Your task to perform on an android device: turn off priority inbox in the gmail app Image 0: 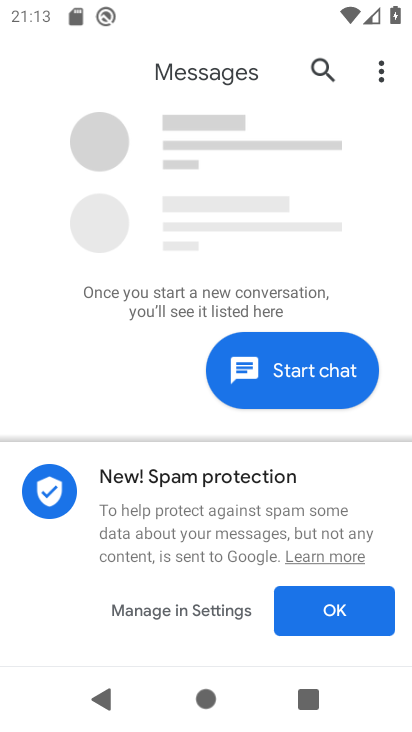
Step 0: drag from (207, 575) to (273, 94)
Your task to perform on an android device: turn off priority inbox in the gmail app Image 1: 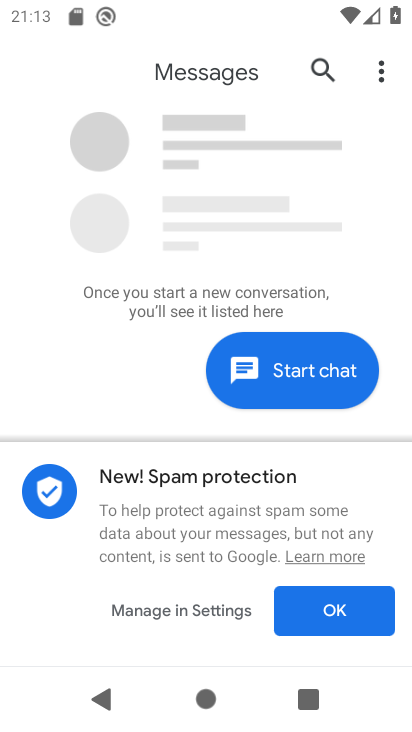
Step 1: press home button
Your task to perform on an android device: turn off priority inbox in the gmail app Image 2: 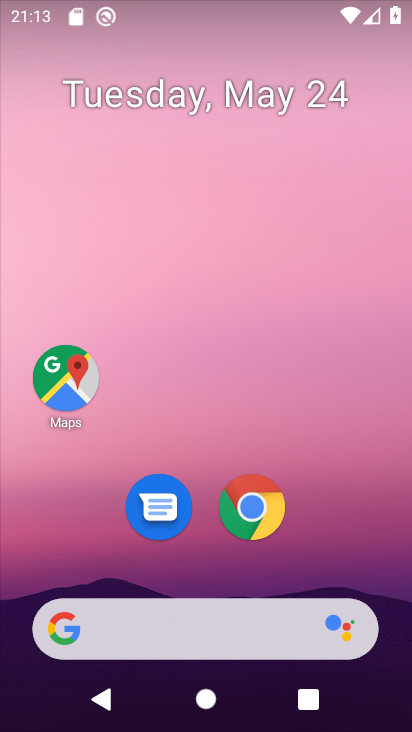
Step 2: drag from (198, 578) to (305, 265)
Your task to perform on an android device: turn off priority inbox in the gmail app Image 3: 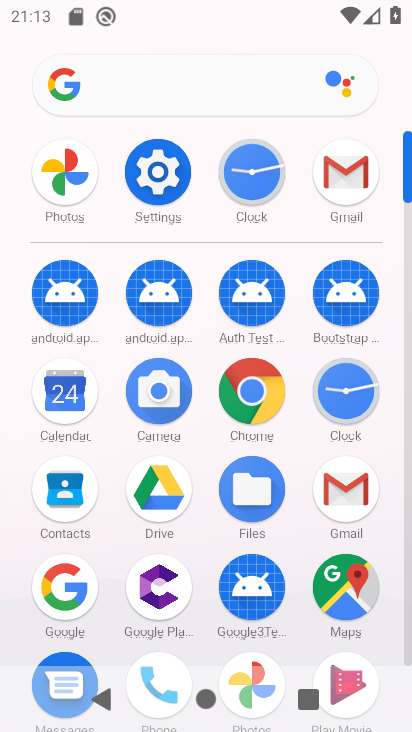
Step 3: click (346, 475)
Your task to perform on an android device: turn off priority inbox in the gmail app Image 4: 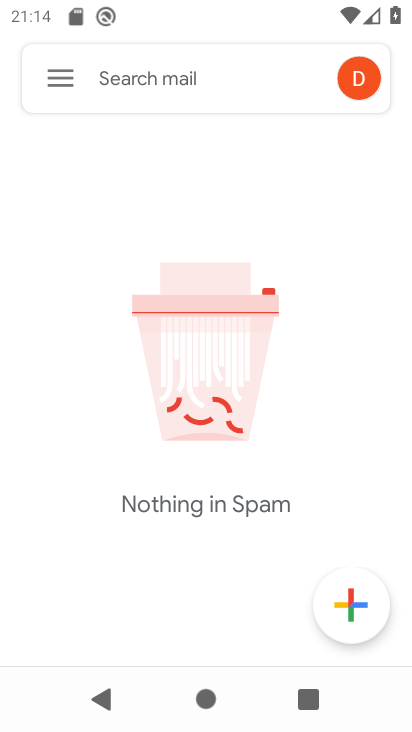
Step 4: drag from (196, 554) to (251, 293)
Your task to perform on an android device: turn off priority inbox in the gmail app Image 5: 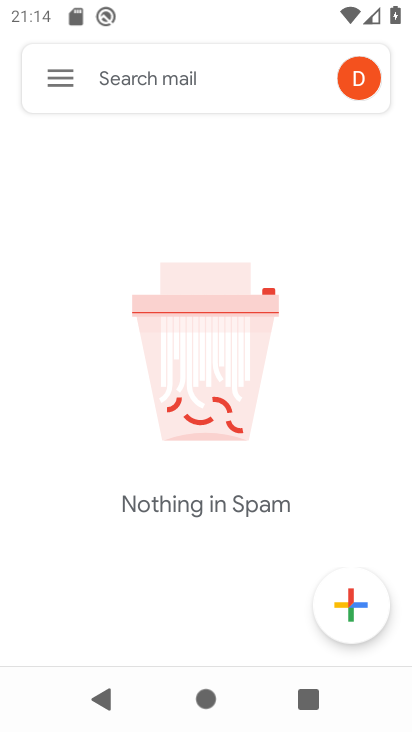
Step 5: click (64, 63)
Your task to perform on an android device: turn off priority inbox in the gmail app Image 6: 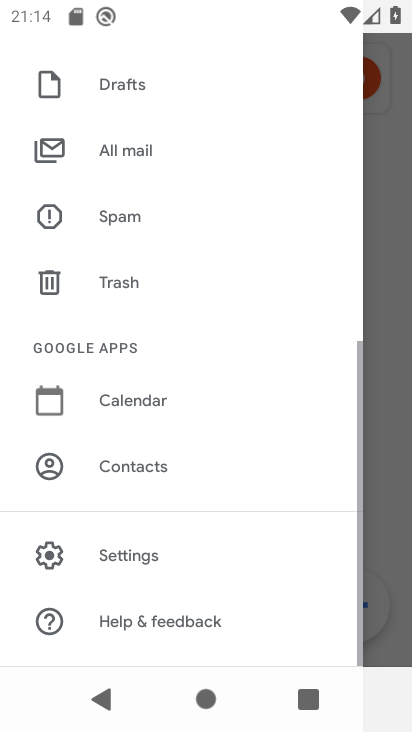
Step 6: drag from (171, 548) to (183, 262)
Your task to perform on an android device: turn off priority inbox in the gmail app Image 7: 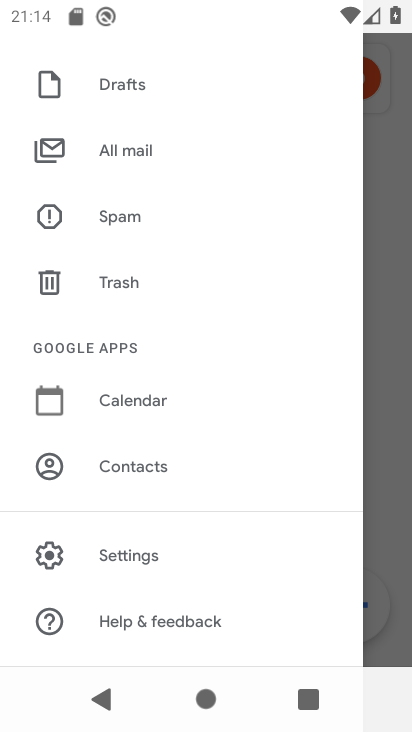
Step 7: click (133, 556)
Your task to perform on an android device: turn off priority inbox in the gmail app Image 8: 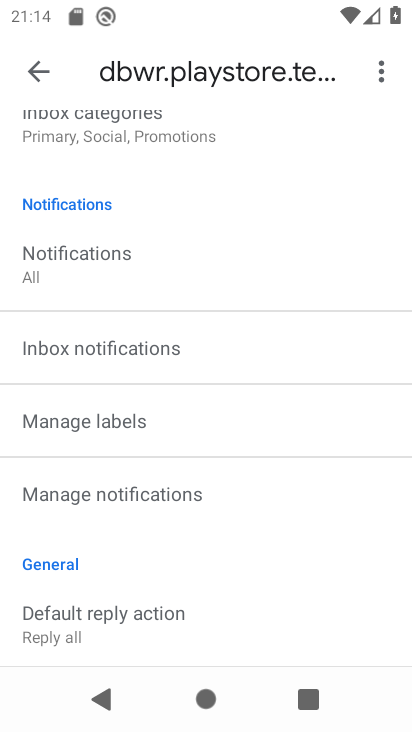
Step 8: drag from (247, 199) to (231, 725)
Your task to perform on an android device: turn off priority inbox in the gmail app Image 9: 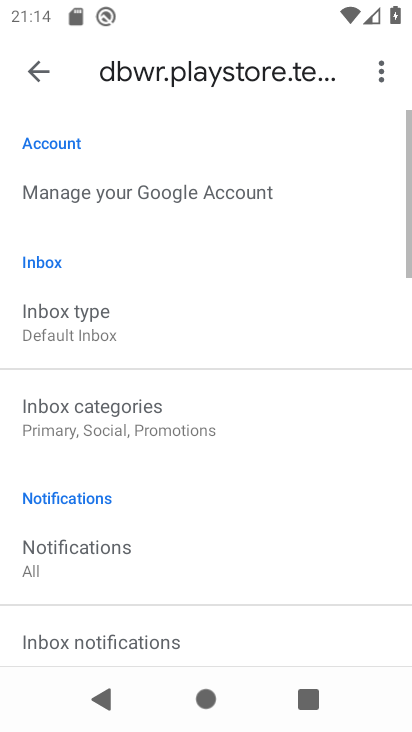
Step 9: drag from (209, 313) to (232, 650)
Your task to perform on an android device: turn off priority inbox in the gmail app Image 10: 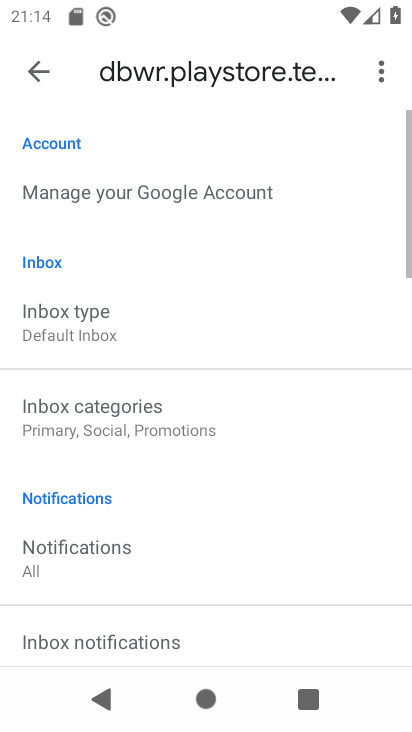
Step 10: click (121, 322)
Your task to perform on an android device: turn off priority inbox in the gmail app Image 11: 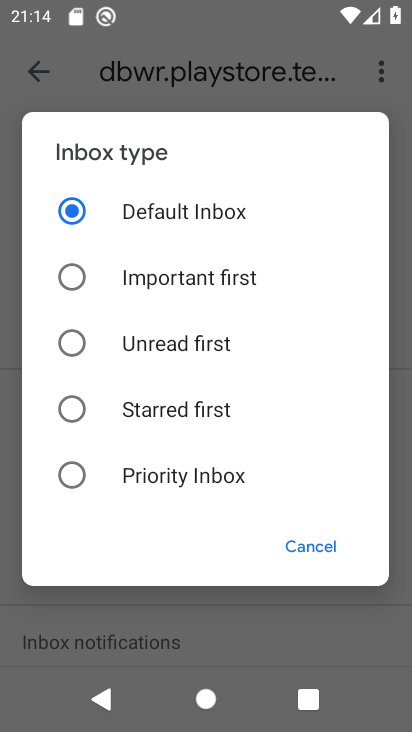
Step 11: task complete